Your task to perform on an android device: turn off sleep mode Image 0: 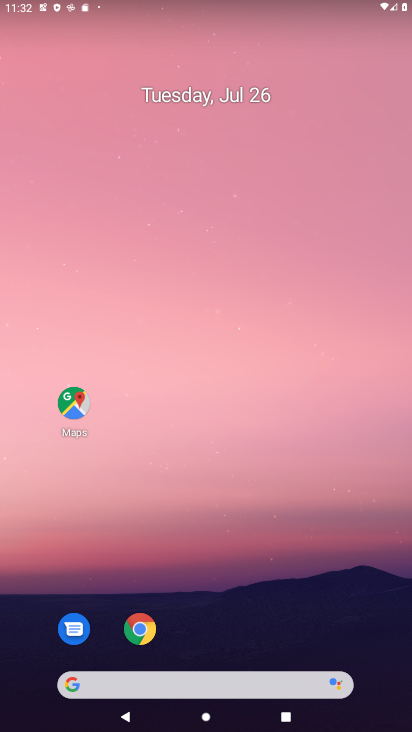
Step 0: drag from (211, 658) to (211, 66)
Your task to perform on an android device: turn off sleep mode Image 1: 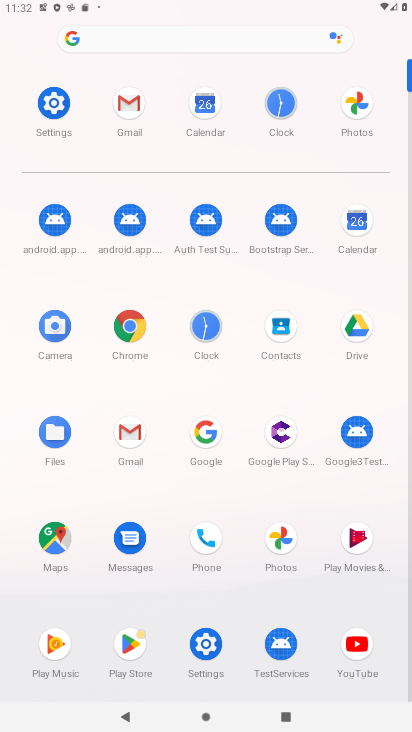
Step 1: click (280, 97)
Your task to perform on an android device: turn off sleep mode Image 2: 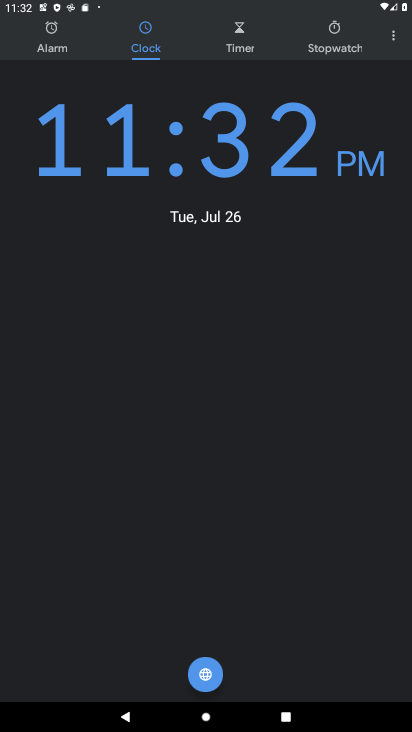
Step 2: click (394, 31)
Your task to perform on an android device: turn off sleep mode Image 3: 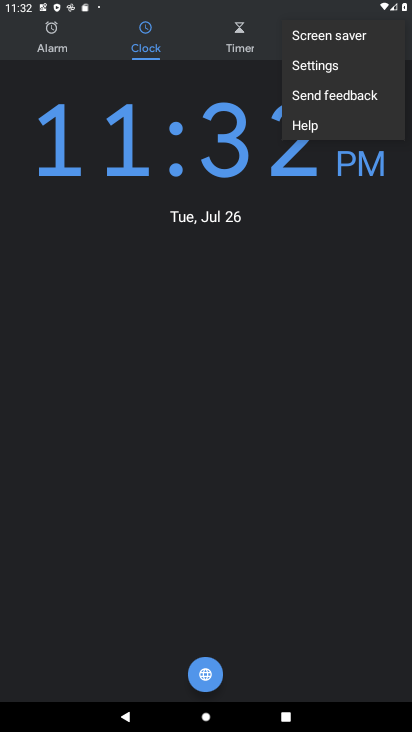
Step 3: click (331, 62)
Your task to perform on an android device: turn off sleep mode Image 4: 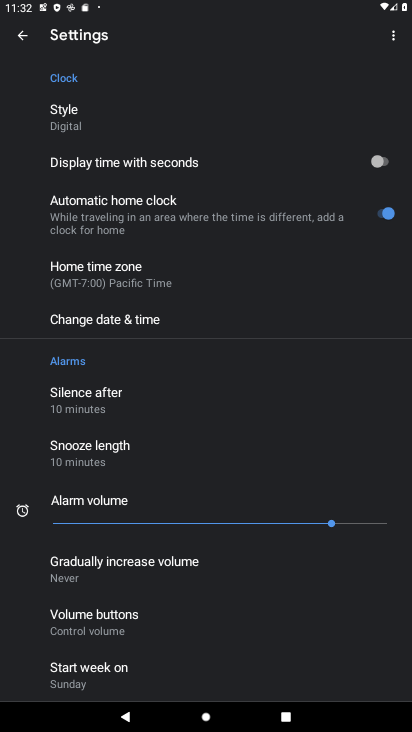
Step 4: task complete